Your task to perform on an android device: What's the weather? Image 0: 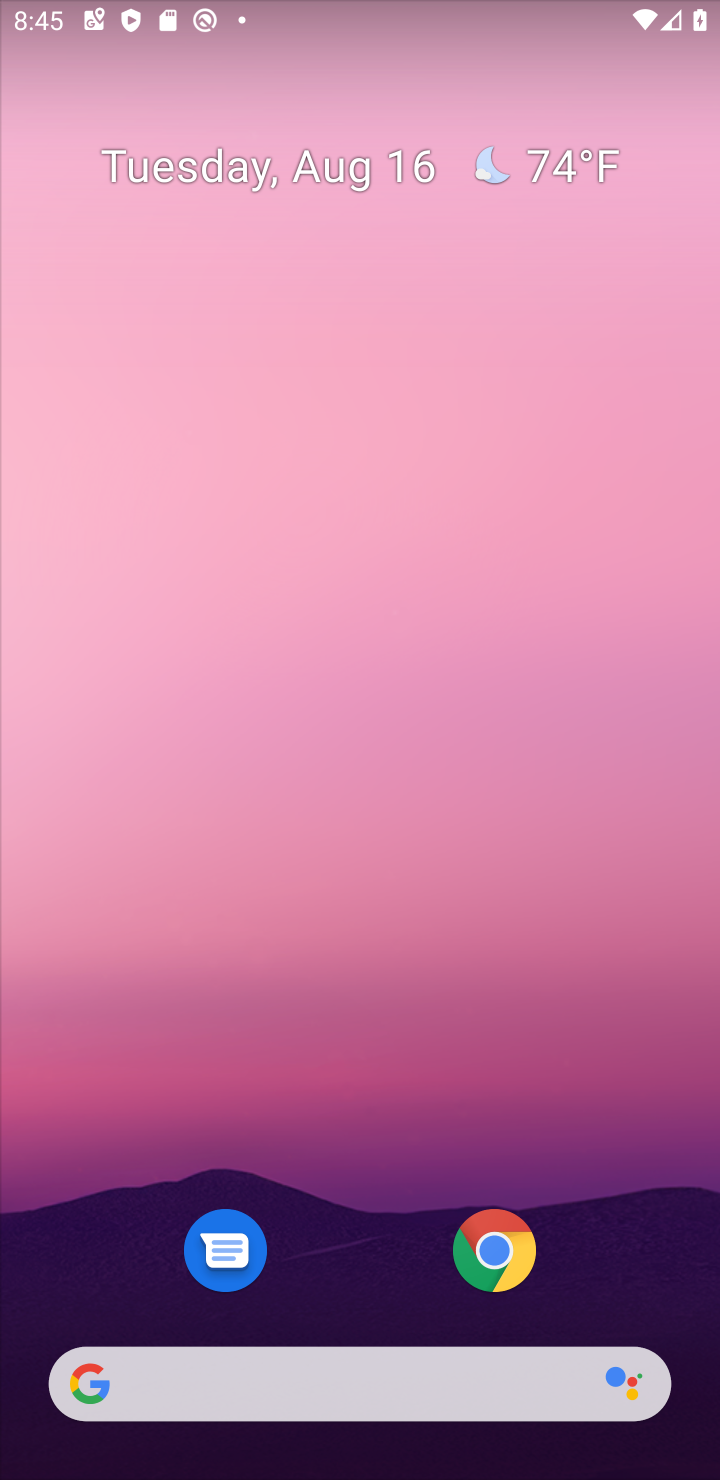
Step 0: click (574, 146)
Your task to perform on an android device: What's the weather? Image 1: 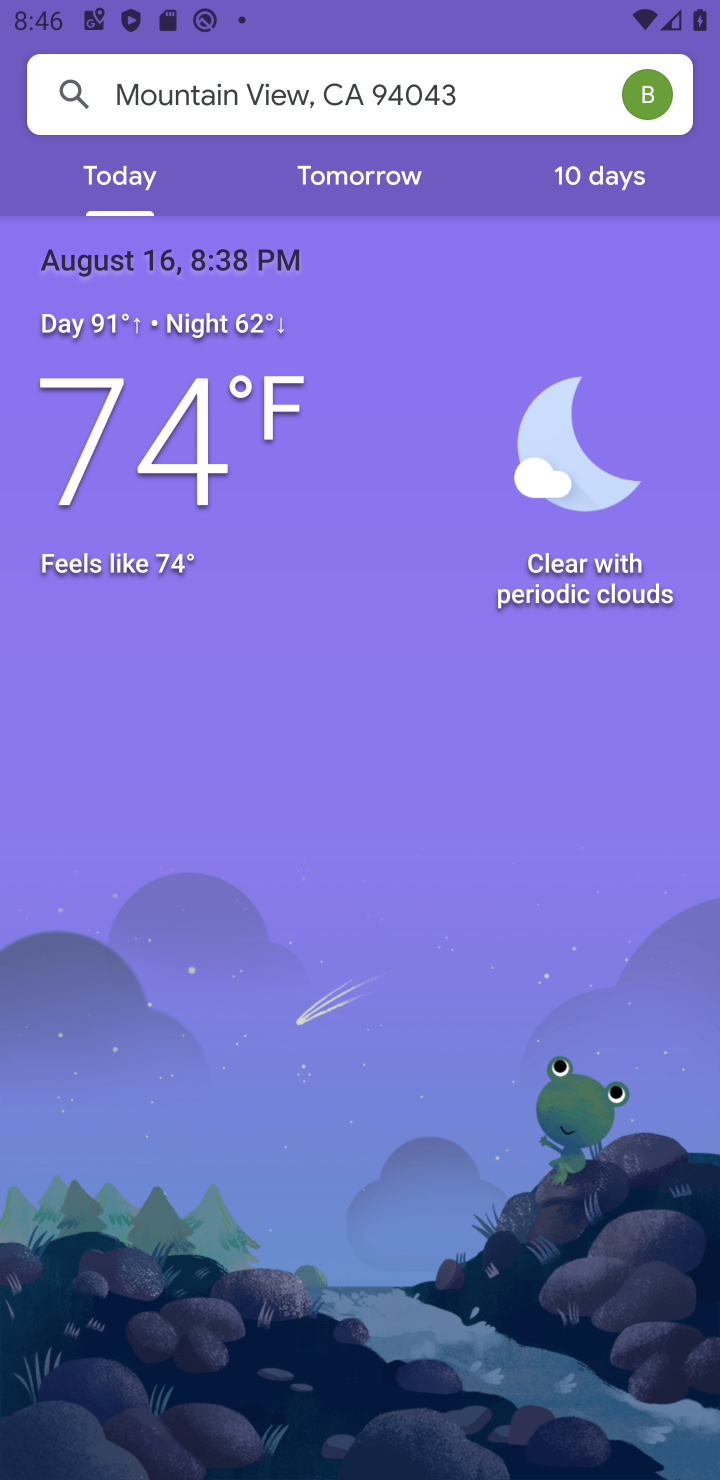
Step 1: task complete